Your task to perform on an android device: check android version Image 0: 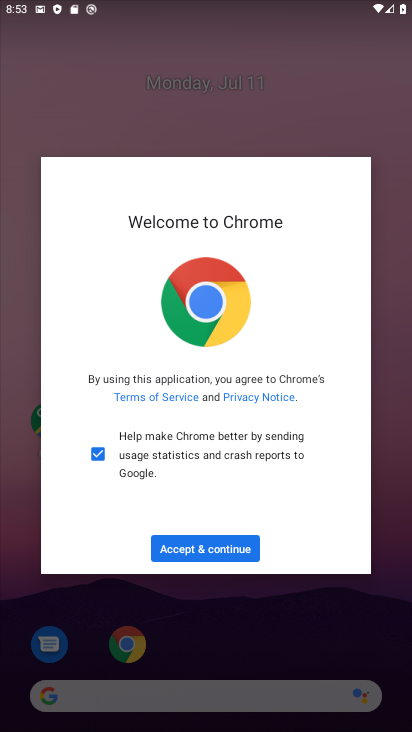
Step 0: press home button
Your task to perform on an android device: check android version Image 1: 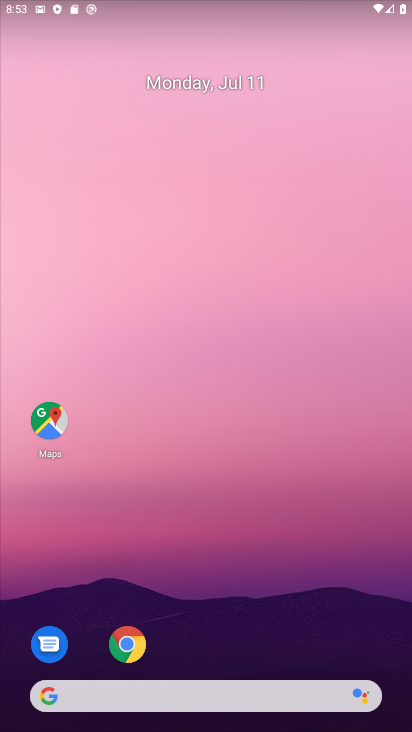
Step 1: drag from (180, 383) to (192, 4)
Your task to perform on an android device: check android version Image 2: 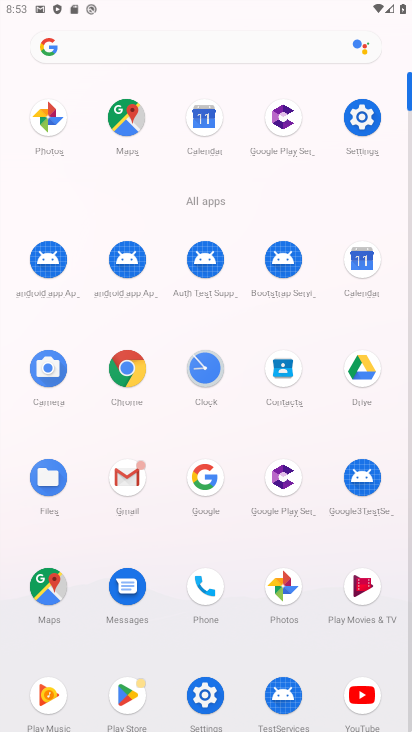
Step 2: click (367, 125)
Your task to perform on an android device: check android version Image 3: 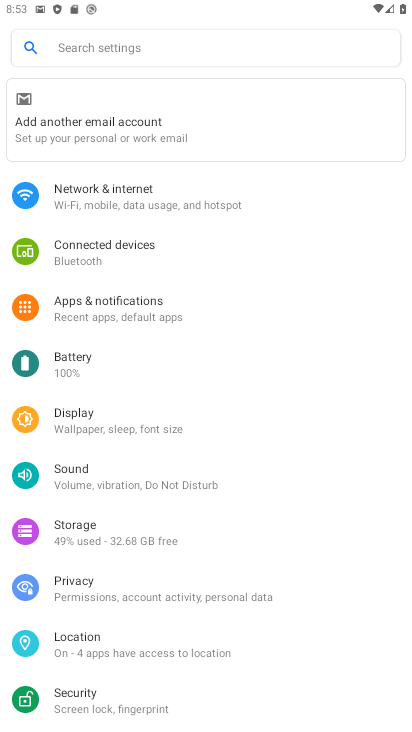
Step 3: click (119, 293)
Your task to perform on an android device: check android version Image 4: 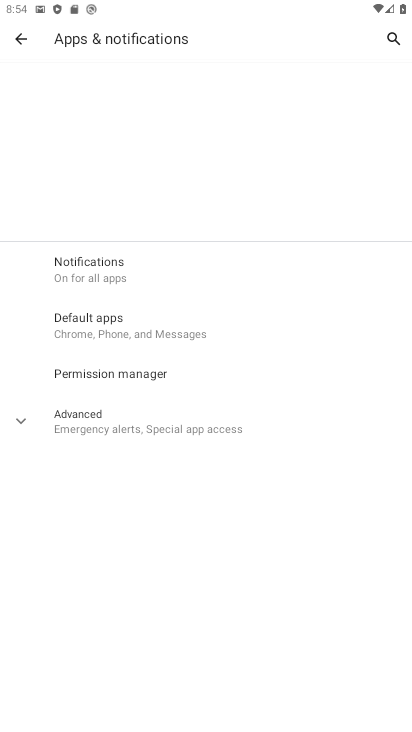
Step 4: drag from (162, 661) to (205, 192)
Your task to perform on an android device: check android version Image 5: 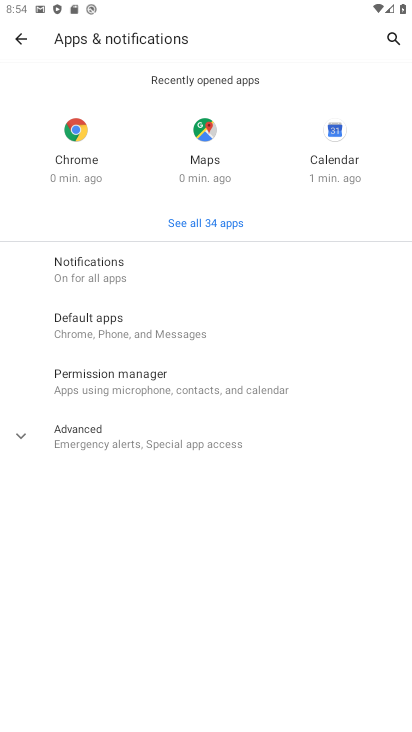
Step 5: click (19, 39)
Your task to perform on an android device: check android version Image 6: 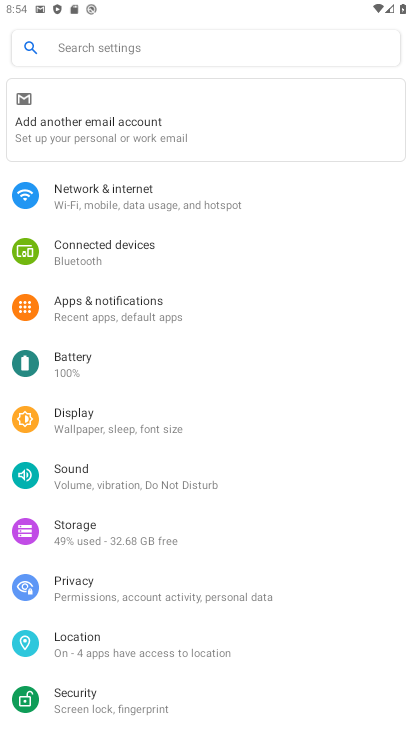
Step 6: drag from (146, 531) to (216, 244)
Your task to perform on an android device: check android version Image 7: 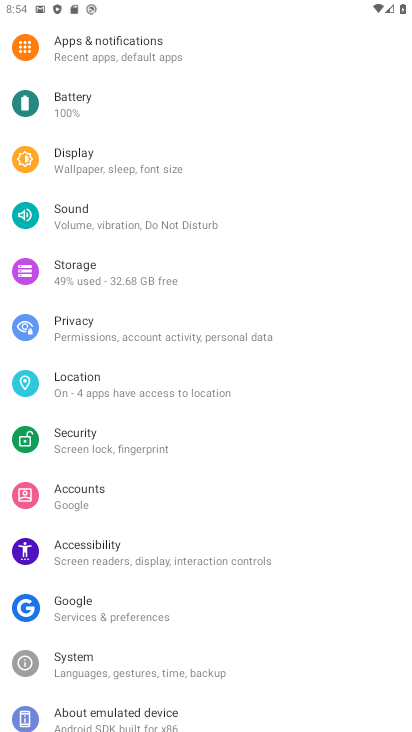
Step 7: click (101, 717)
Your task to perform on an android device: check android version Image 8: 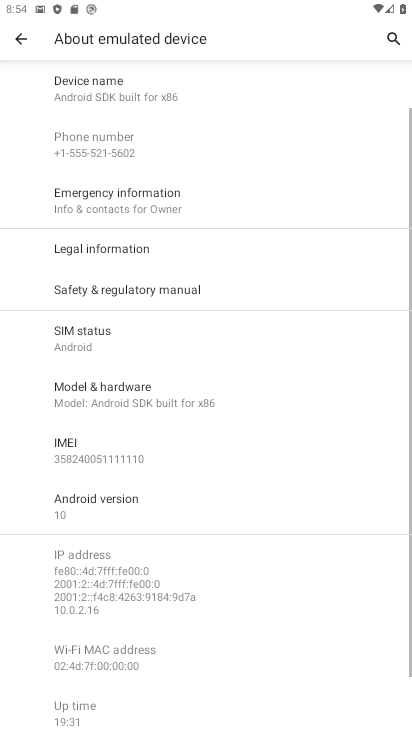
Step 8: task complete